Your task to perform on an android device: Go to Android settings Image 0: 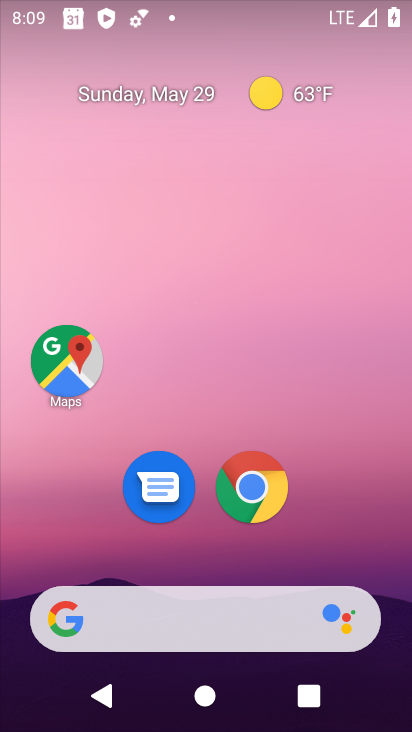
Step 0: drag from (258, 674) to (339, 176)
Your task to perform on an android device: Go to Android settings Image 1: 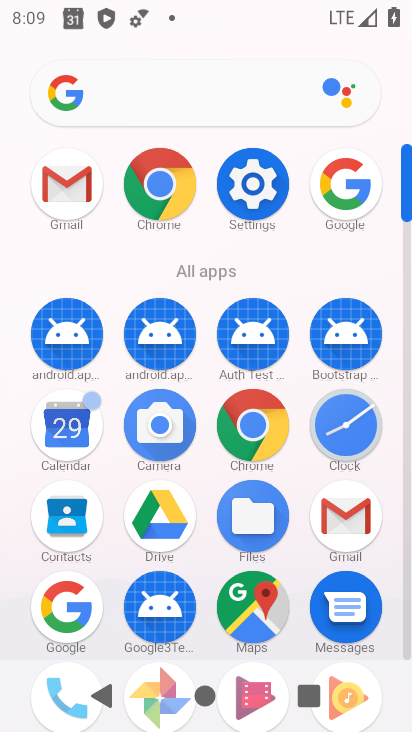
Step 1: click (259, 188)
Your task to perform on an android device: Go to Android settings Image 2: 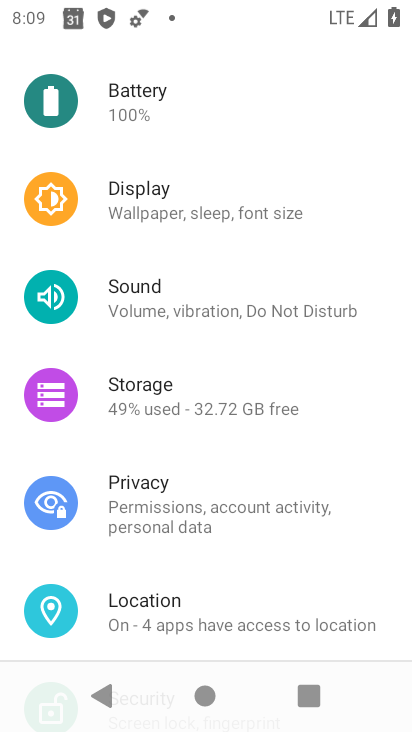
Step 2: drag from (177, 521) to (264, 11)
Your task to perform on an android device: Go to Android settings Image 3: 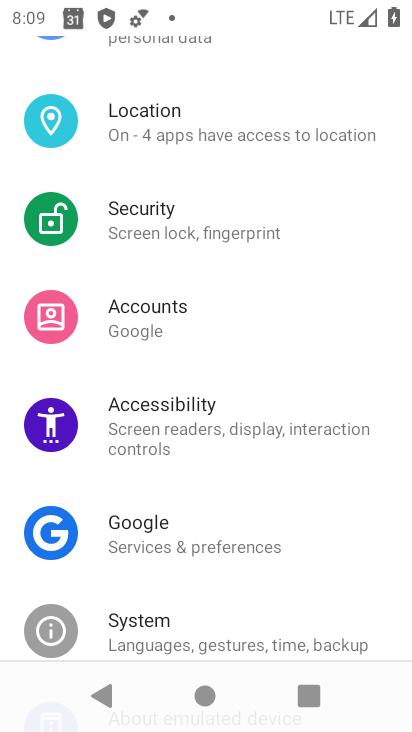
Step 3: drag from (192, 523) to (238, 27)
Your task to perform on an android device: Go to Android settings Image 4: 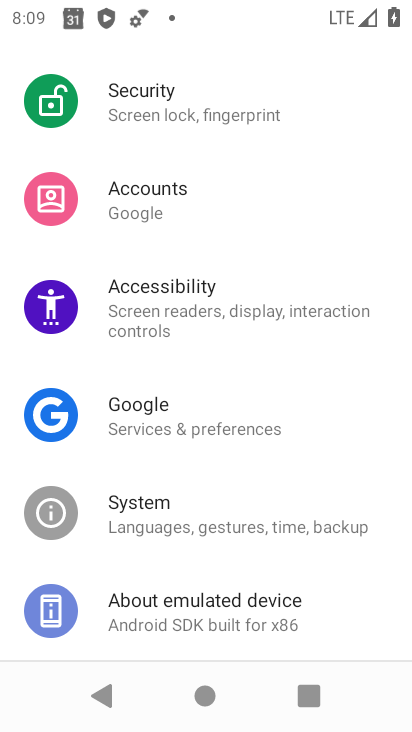
Step 4: drag from (157, 600) to (205, 232)
Your task to perform on an android device: Go to Android settings Image 5: 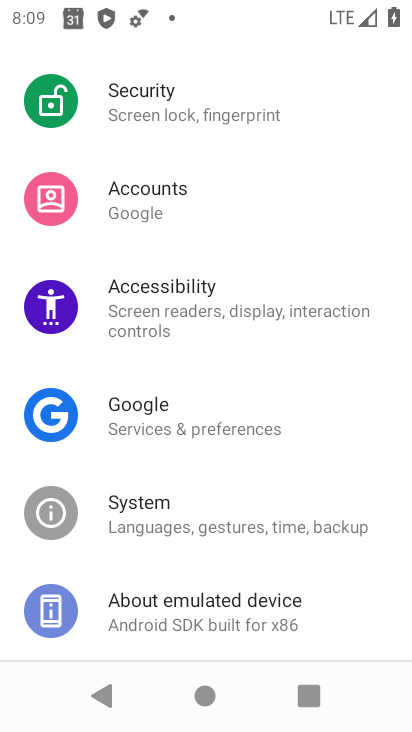
Step 5: click (210, 629)
Your task to perform on an android device: Go to Android settings Image 6: 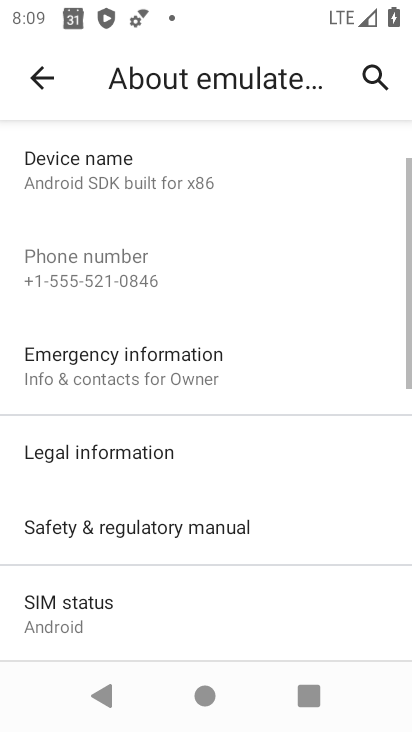
Step 6: drag from (225, 513) to (263, 160)
Your task to perform on an android device: Go to Android settings Image 7: 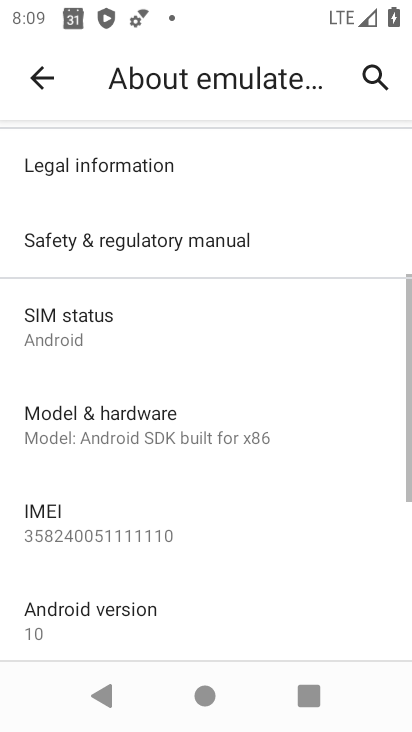
Step 7: click (38, 605)
Your task to perform on an android device: Go to Android settings Image 8: 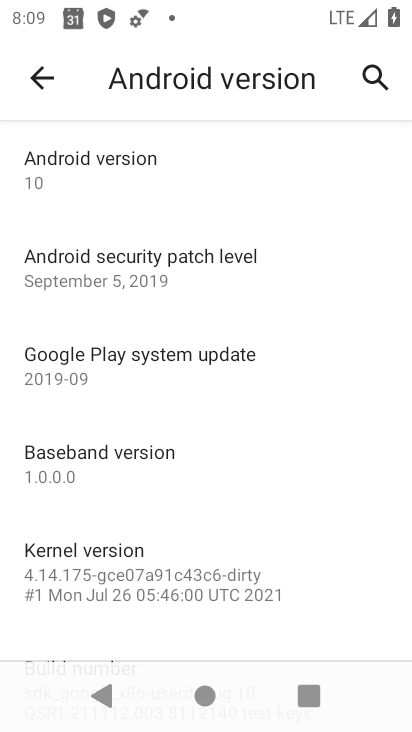
Step 8: click (183, 177)
Your task to perform on an android device: Go to Android settings Image 9: 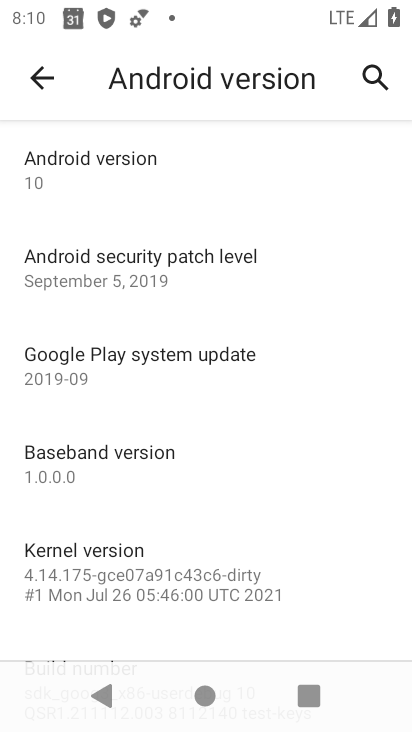
Step 9: click (185, 173)
Your task to perform on an android device: Go to Android settings Image 10: 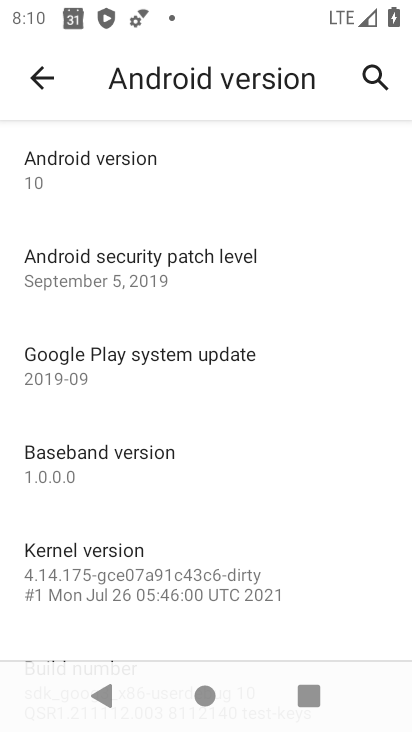
Step 10: task complete